Your task to perform on an android device: empty trash in the gmail app Image 0: 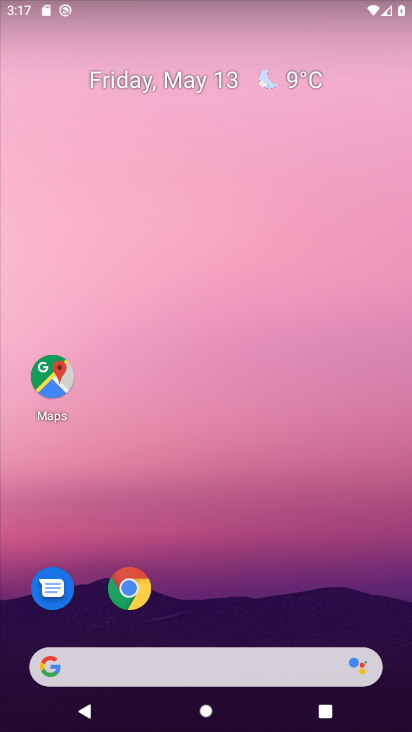
Step 0: drag from (350, 586) to (227, 53)
Your task to perform on an android device: empty trash in the gmail app Image 1: 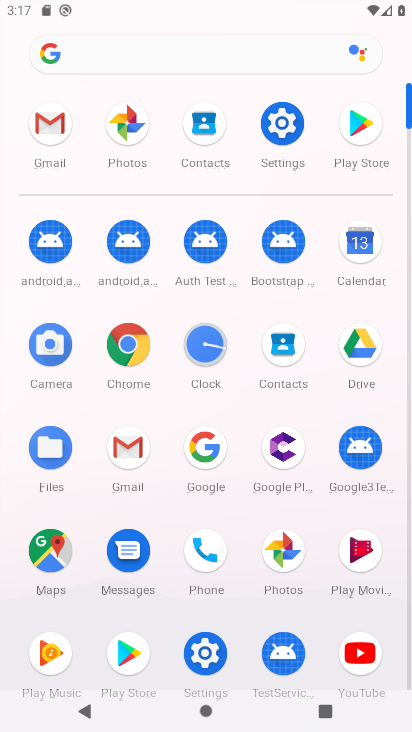
Step 1: click (127, 446)
Your task to perform on an android device: empty trash in the gmail app Image 2: 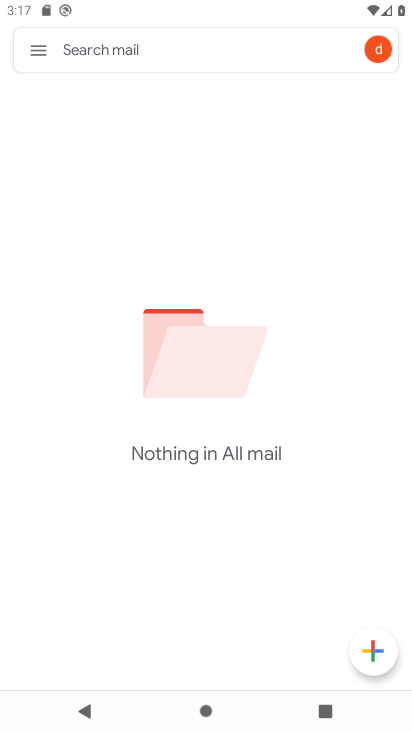
Step 2: click (40, 46)
Your task to perform on an android device: empty trash in the gmail app Image 3: 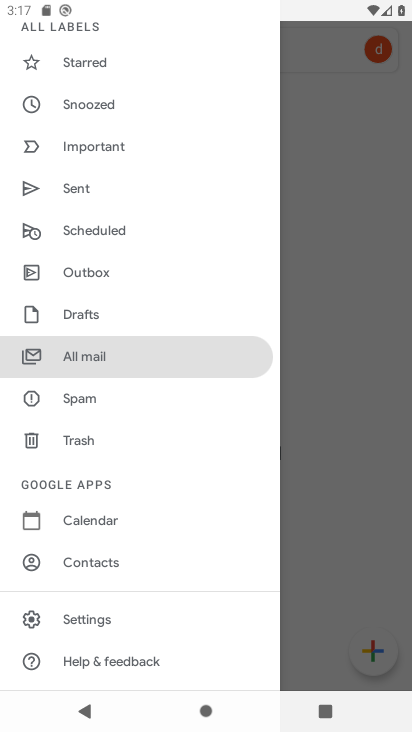
Step 3: click (123, 439)
Your task to perform on an android device: empty trash in the gmail app Image 4: 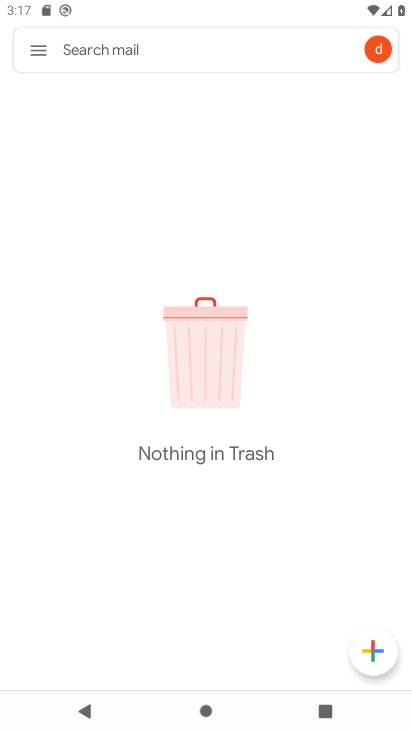
Step 4: task complete